Your task to perform on an android device: Search for Mexican restaurants on Maps Image 0: 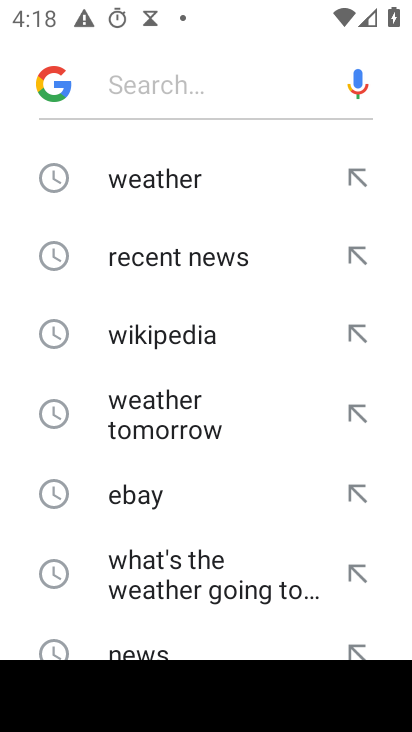
Step 0: press back button
Your task to perform on an android device: Search for Mexican restaurants on Maps Image 1: 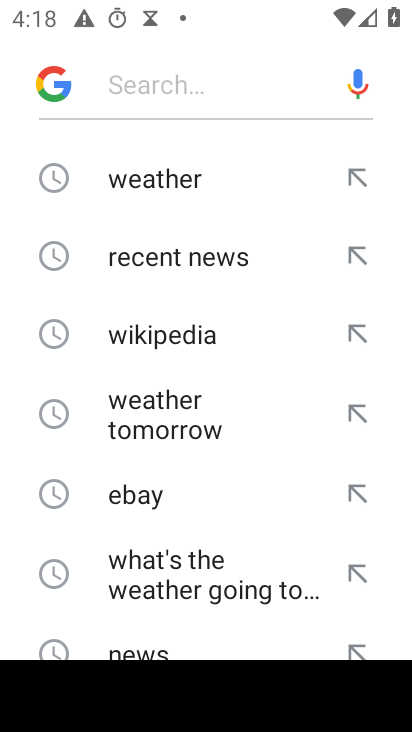
Step 1: press back button
Your task to perform on an android device: Search for Mexican restaurants on Maps Image 2: 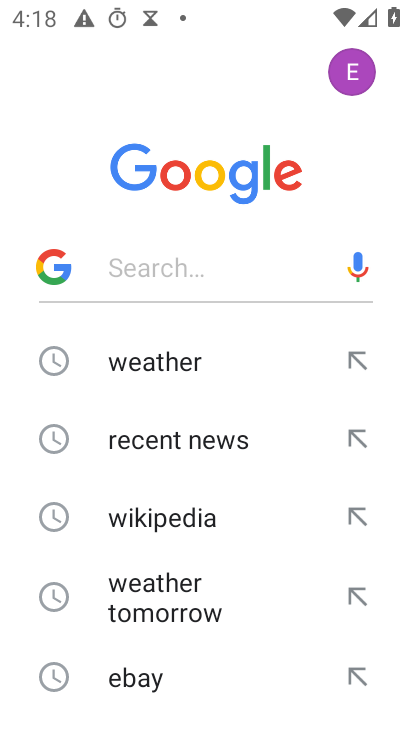
Step 2: press back button
Your task to perform on an android device: Search for Mexican restaurants on Maps Image 3: 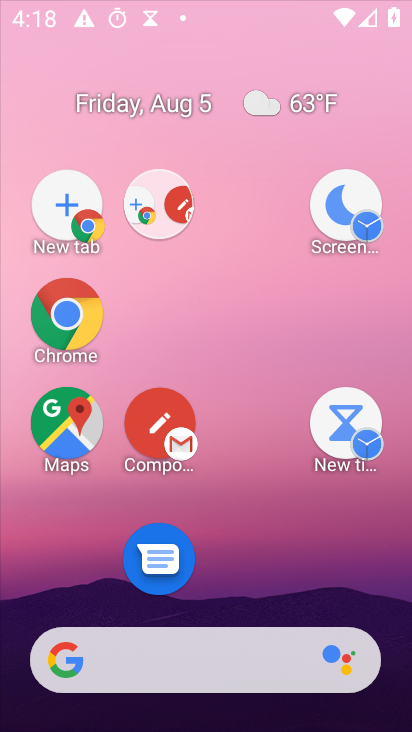
Step 3: press back button
Your task to perform on an android device: Search for Mexican restaurants on Maps Image 4: 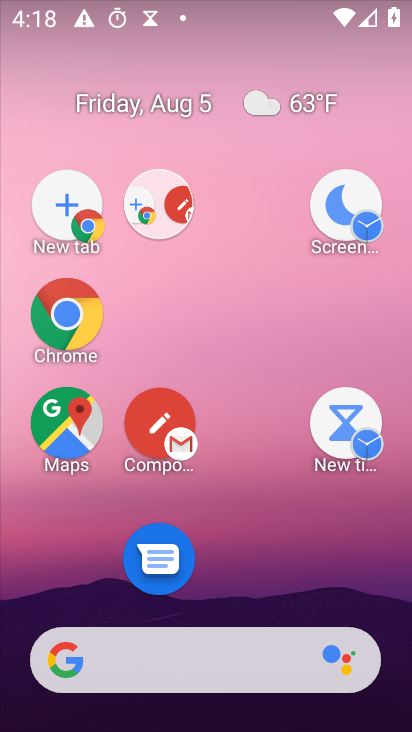
Step 4: press home button
Your task to perform on an android device: Search for Mexican restaurants on Maps Image 5: 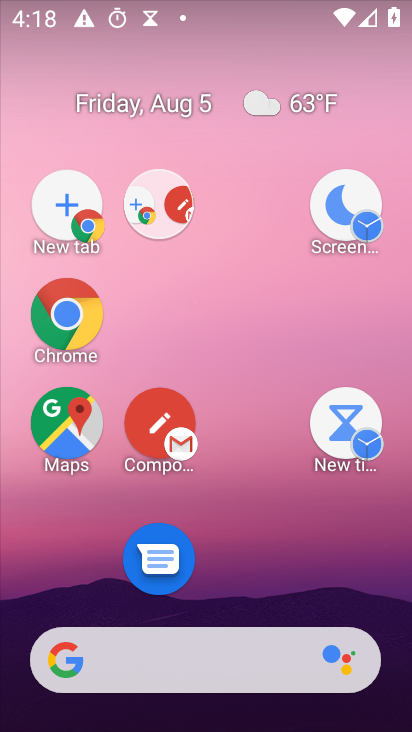
Step 5: drag from (247, 590) to (207, 180)
Your task to perform on an android device: Search for Mexican restaurants on Maps Image 6: 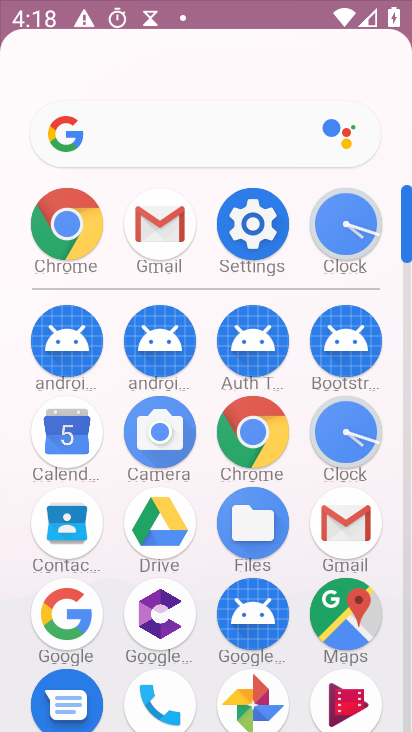
Step 6: click (176, 69)
Your task to perform on an android device: Search for Mexican restaurants on Maps Image 7: 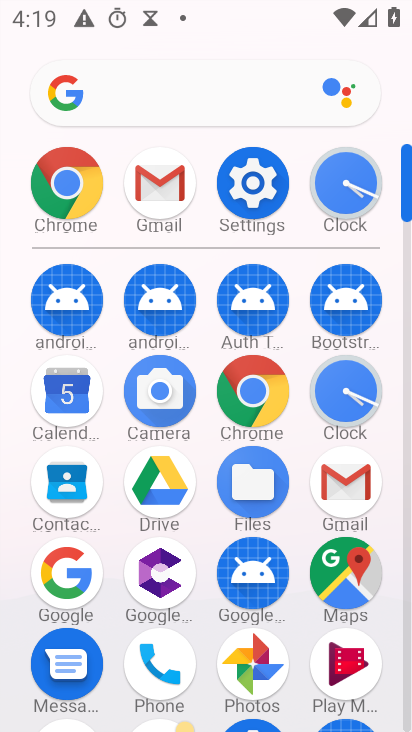
Step 7: click (354, 567)
Your task to perform on an android device: Search for Mexican restaurants on Maps Image 8: 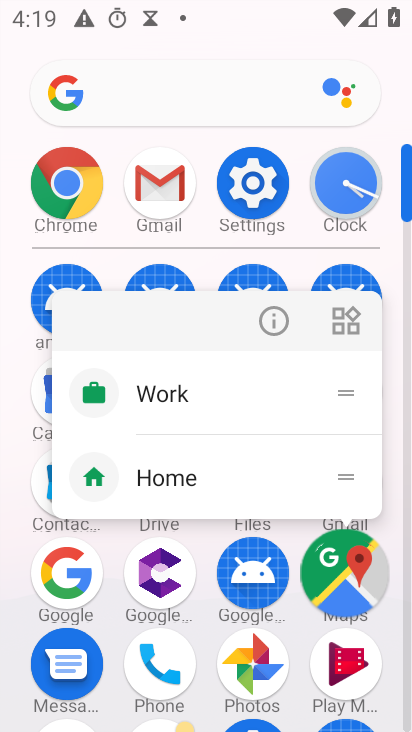
Step 8: click (334, 580)
Your task to perform on an android device: Search for Mexican restaurants on Maps Image 9: 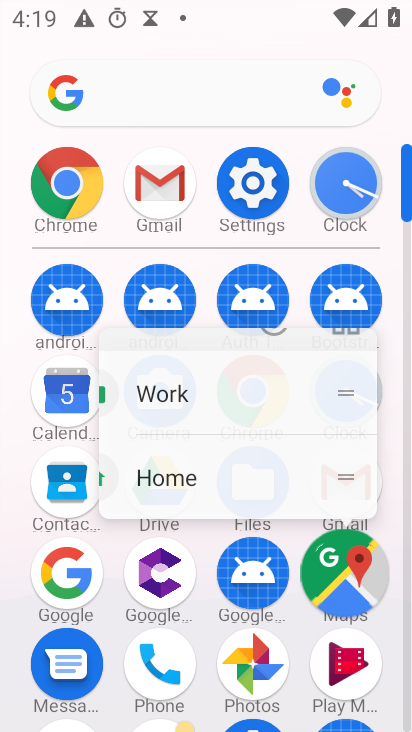
Step 9: click (334, 571)
Your task to perform on an android device: Search for Mexican restaurants on Maps Image 10: 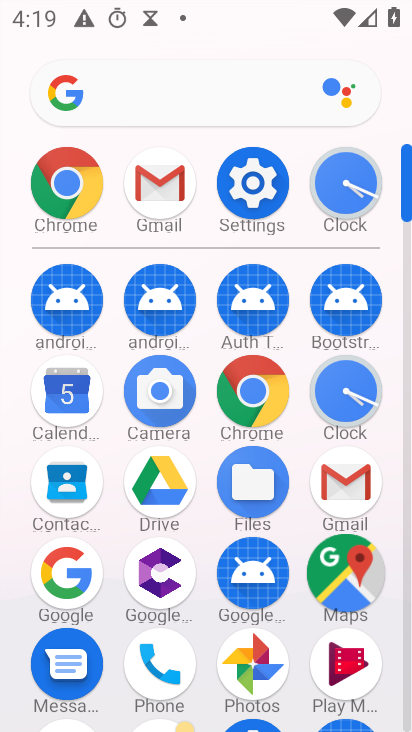
Step 10: click (336, 581)
Your task to perform on an android device: Search for Mexican restaurants on Maps Image 11: 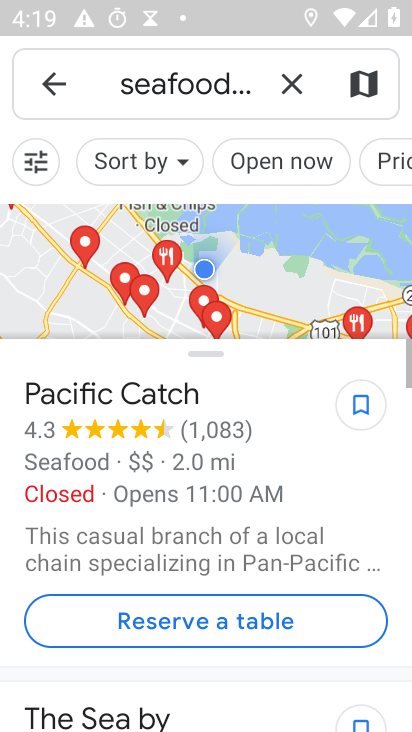
Step 11: click (293, 82)
Your task to perform on an android device: Search for Mexican restaurants on Maps Image 12: 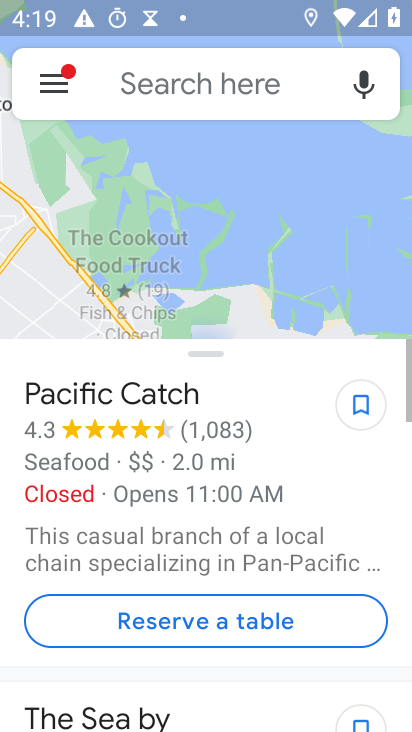
Step 12: click (127, 78)
Your task to perform on an android device: Search for Mexican restaurants on Maps Image 13: 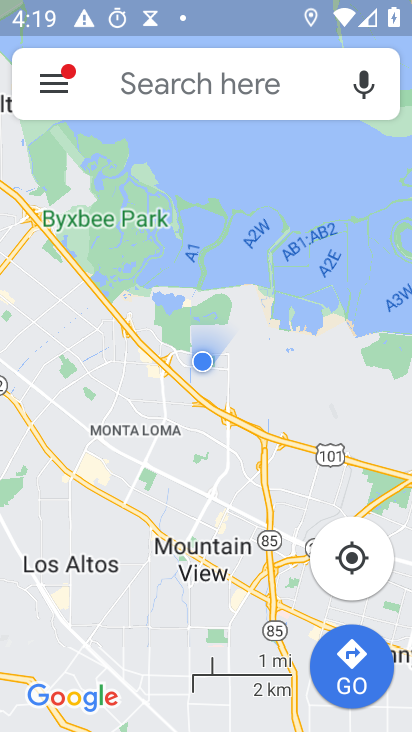
Step 13: click (127, 78)
Your task to perform on an android device: Search for Mexican restaurants on Maps Image 14: 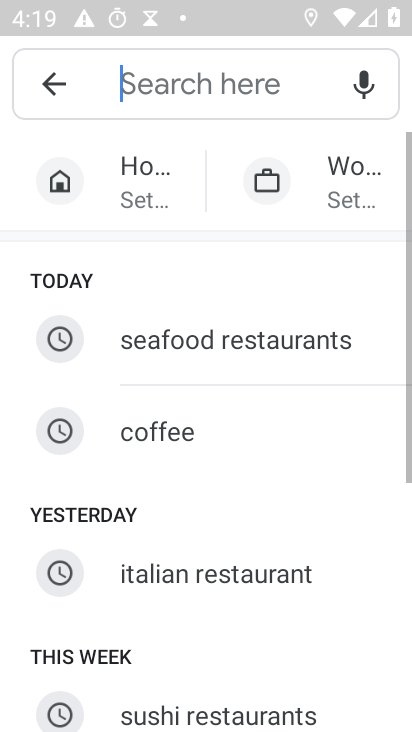
Step 14: click (123, 83)
Your task to perform on an android device: Search for Mexican restaurants on Maps Image 15: 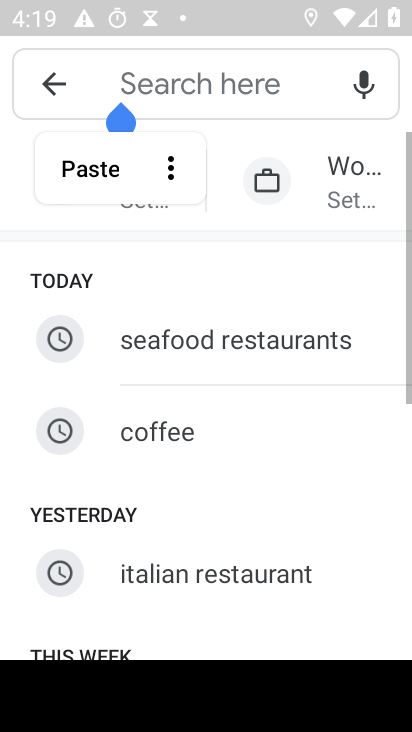
Step 15: drag from (272, 600) to (200, 107)
Your task to perform on an android device: Search for Mexican restaurants on Maps Image 16: 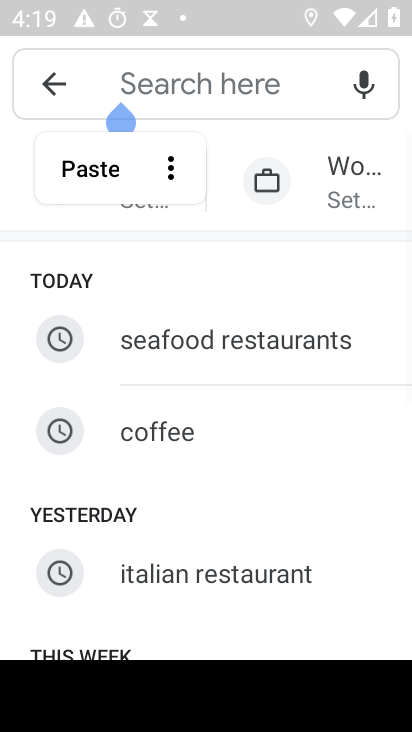
Step 16: drag from (224, 483) to (226, 215)
Your task to perform on an android device: Search for Mexican restaurants on Maps Image 17: 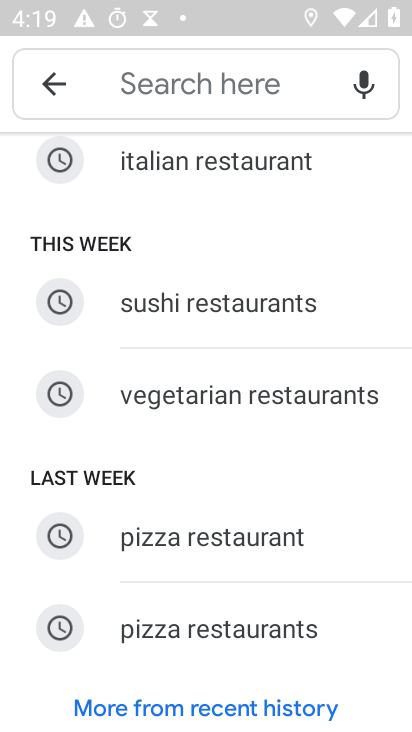
Step 17: click (130, 72)
Your task to perform on an android device: Search for Mexican restaurants on Maps Image 18: 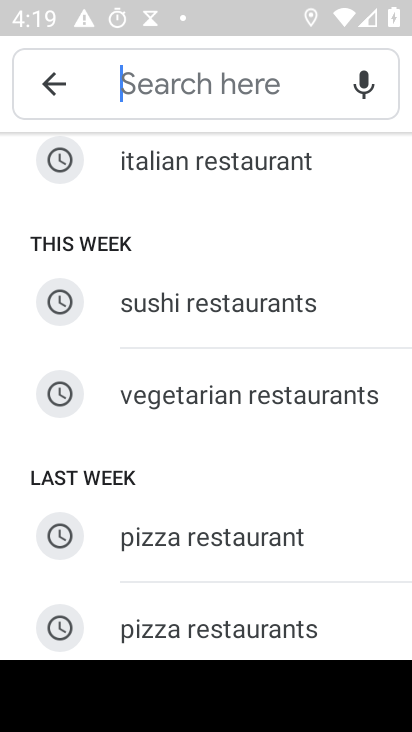
Step 18: type "mexican restaurants"
Your task to perform on an android device: Search for Mexican restaurants on Maps Image 19: 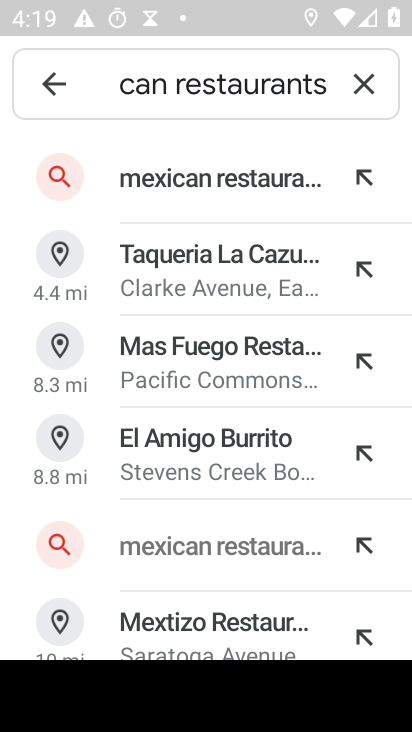
Step 19: click (169, 190)
Your task to perform on an android device: Search for Mexican restaurants on Maps Image 20: 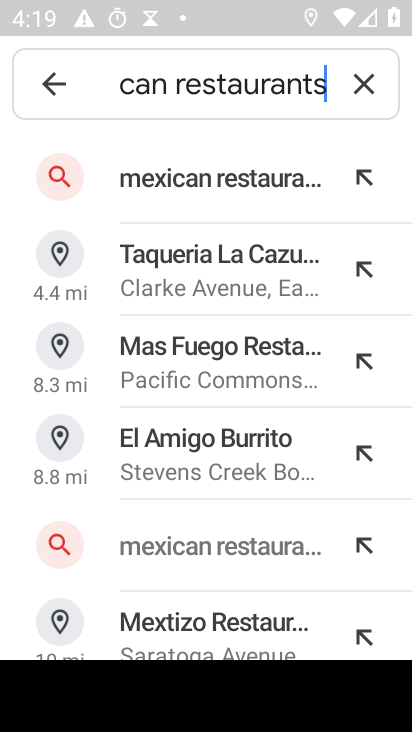
Step 20: click (170, 190)
Your task to perform on an android device: Search for Mexican restaurants on Maps Image 21: 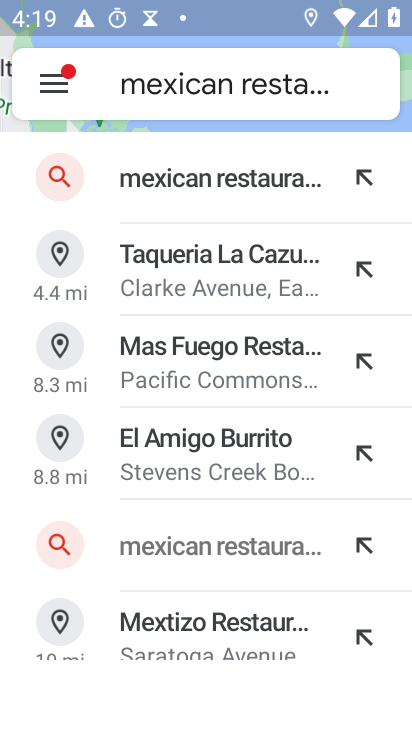
Step 21: click (171, 189)
Your task to perform on an android device: Search for Mexican restaurants on Maps Image 22: 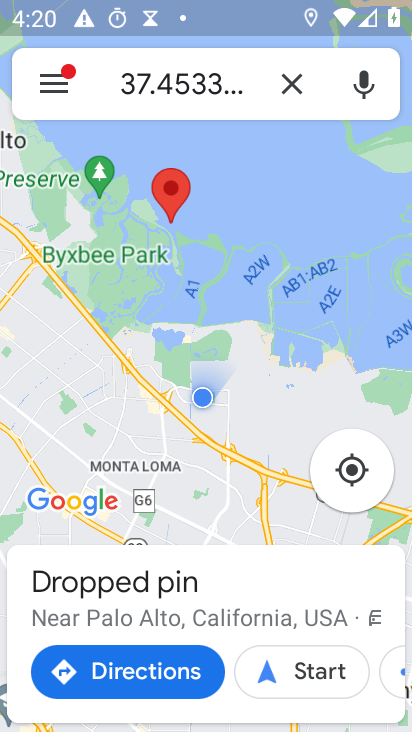
Step 22: task complete